Your task to perform on an android device: toggle notification dots Image 0: 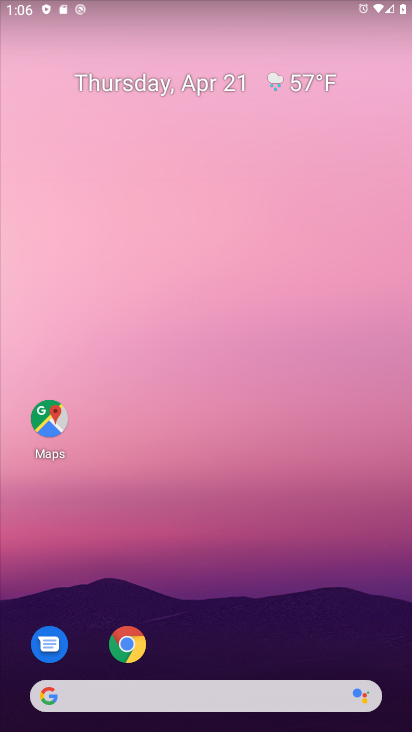
Step 0: drag from (239, 670) to (174, 31)
Your task to perform on an android device: toggle notification dots Image 1: 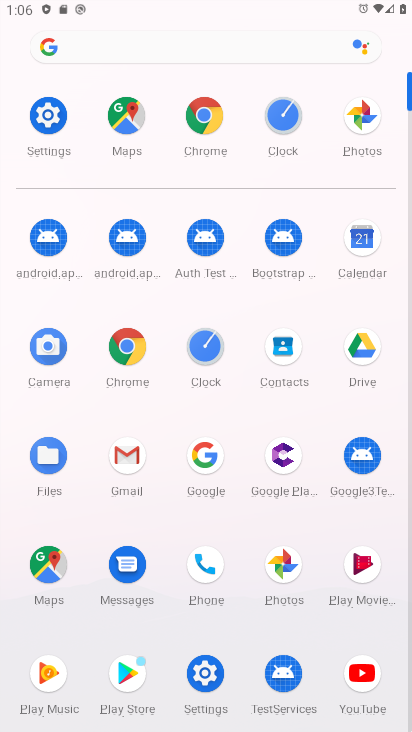
Step 1: click (207, 661)
Your task to perform on an android device: toggle notification dots Image 2: 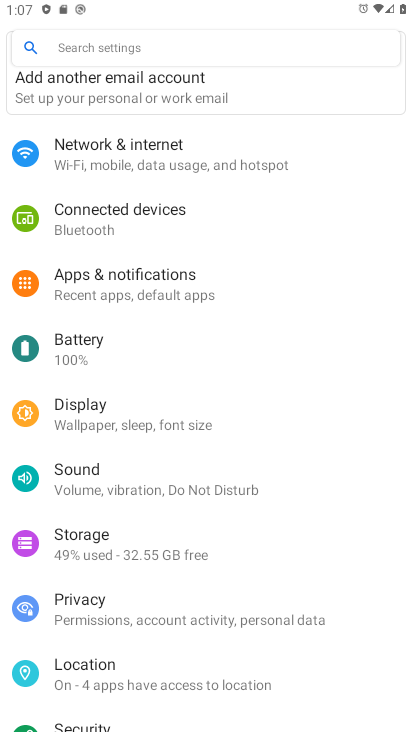
Step 2: click (94, 289)
Your task to perform on an android device: toggle notification dots Image 3: 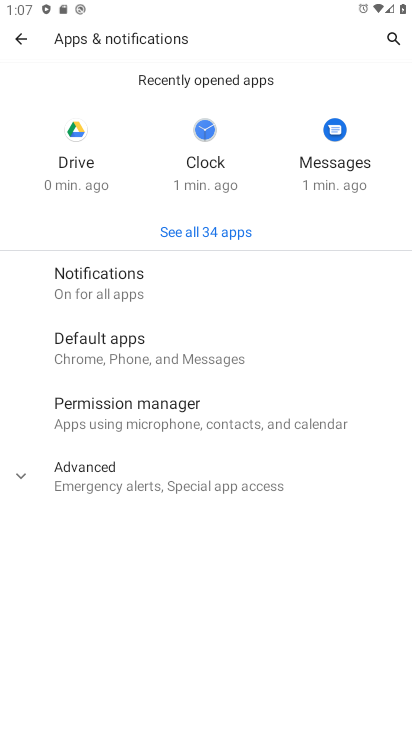
Step 3: click (100, 293)
Your task to perform on an android device: toggle notification dots Image 4: 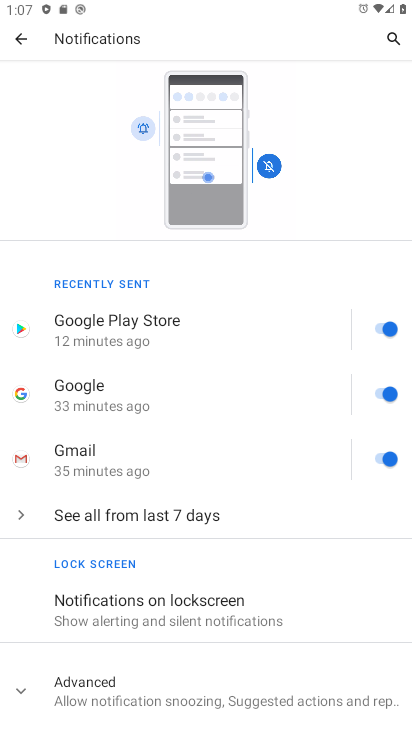
Step 4: drag from (191, 620) to (133, 249)
Your task to perform on an android device: toggle notification dots Image 5: 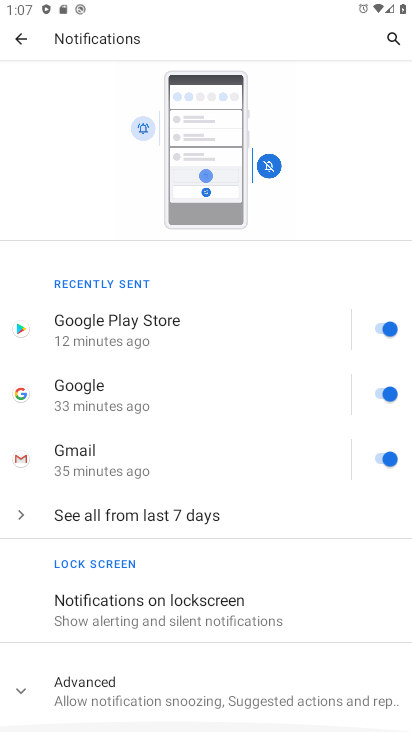
Step 5: click (140, 680)
Your task to perform on an android device: toggle notification dots Image 6: 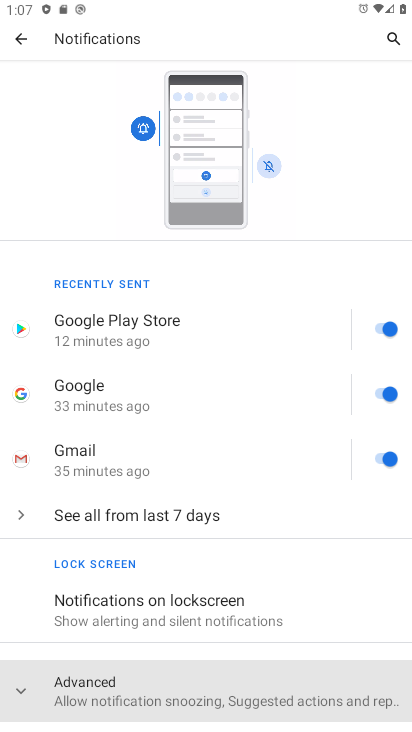
Step 6: drag from (274, 521) to (248, 224)
Your task to perform on an android device: toggle notification dots Image 7: 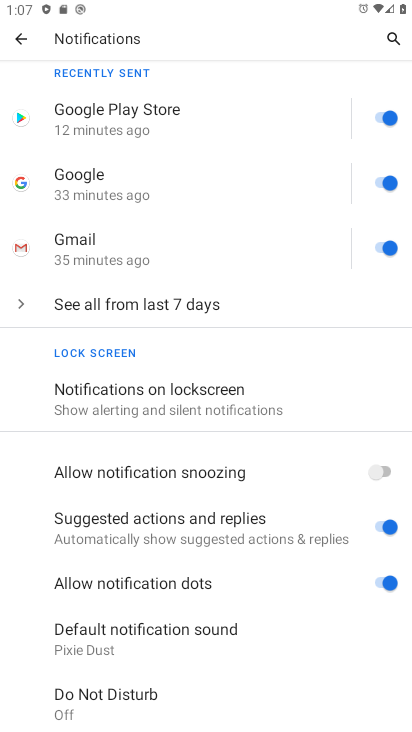
Step 7: click (373, 577)
Your task to perform on an android device: toggle notification dots Image 8: 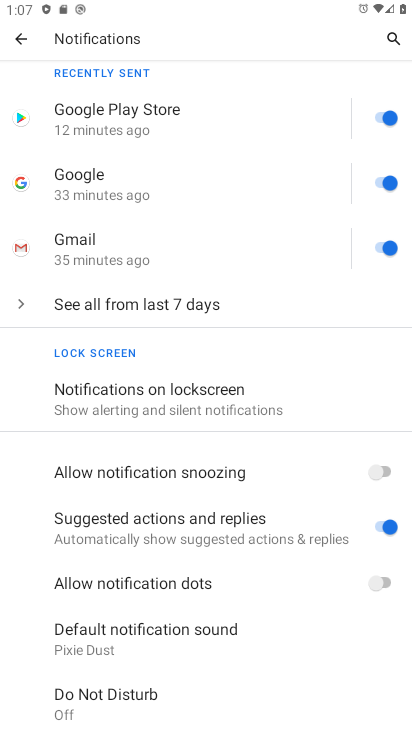
Step 8: task complete